Your task to perform on an android device: install app "Facebook" Image 0: 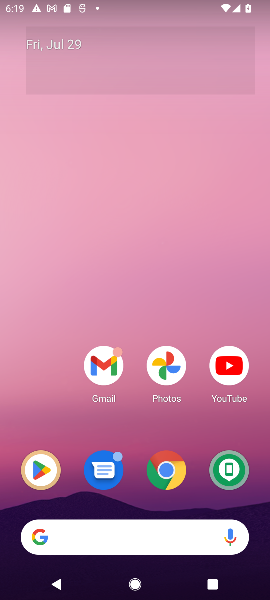
Step 0: press home button
Your task to perform on an android device: install app "Facebook" Image 1: 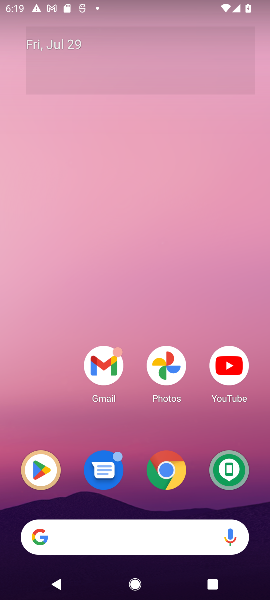
Step 1: drag from (207, 428) to (207, 34)
Your task to perform on an android device: install app "Facebook" Image 2: 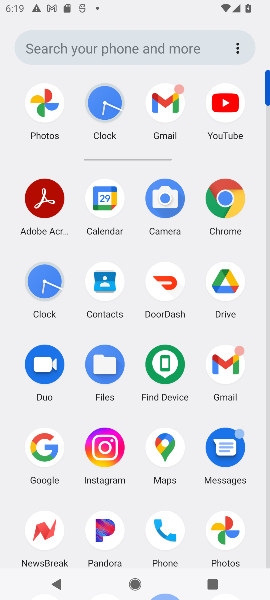
Step 2: drag from (194, 425) to (203, 164)
Your task to perform on an android device: install app "Facebook" Image 3: 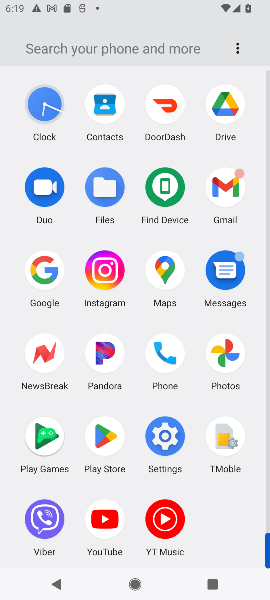
Step 3: click (107, 429)
Your task to perform on an android device: install app "Facebook" Image 4: 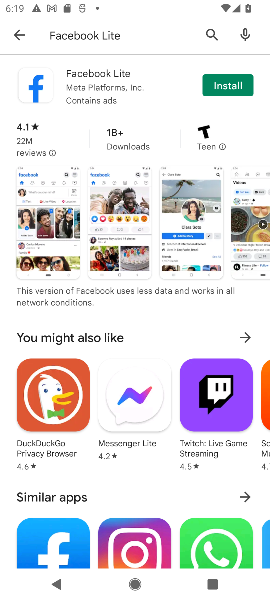
Step 4: click (163, 50)
Your task to perform on an android device: install app "Facebook" Image 5: 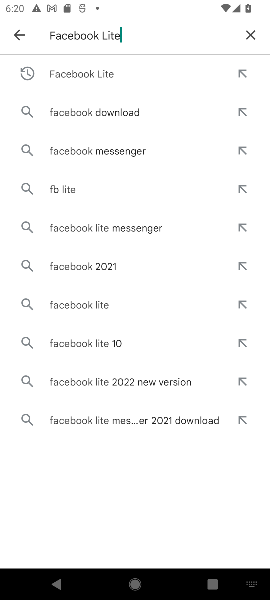
Step 5: click (248, 32)
Your task to perform on an android device: install app "Facebook" Image 6: 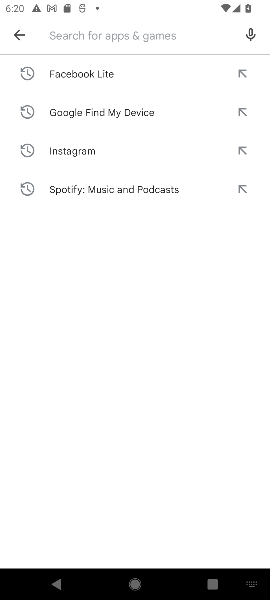
Step 6: type "facebook"
Your task to perform on an android device: install app "Facebook" Image 7: 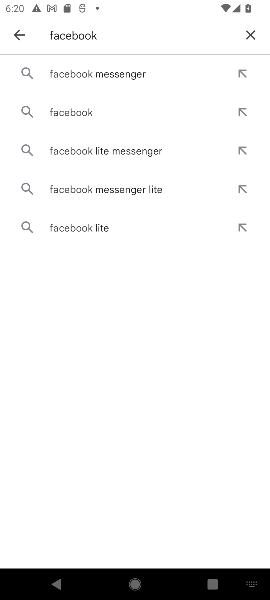
Step 7: press enter
Your task to perform on an android device: install app "Facebook" Image 8: 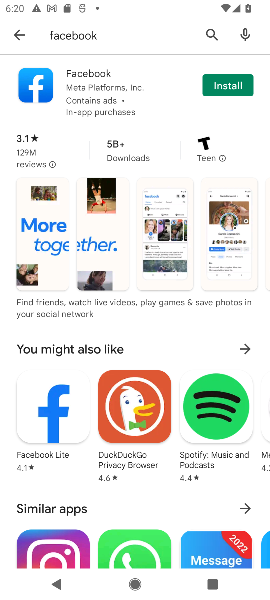
Step 8: click (230, 85)
Your task to perform on an android device: install app "Facebook" Image 9: 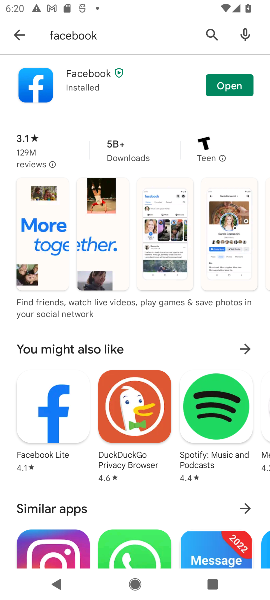
Step 9: task complete